Your task to perform on an android device: Open Google Chrome and click the shortcut for Amazon.com Image 0: 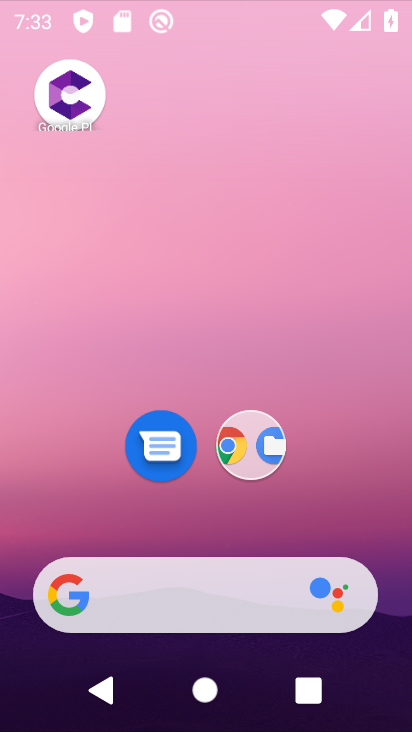
Step 0: press home button
Your task to perform on an android device: Open Google Chrome and click the shortcut for Amazon.com Image 1: 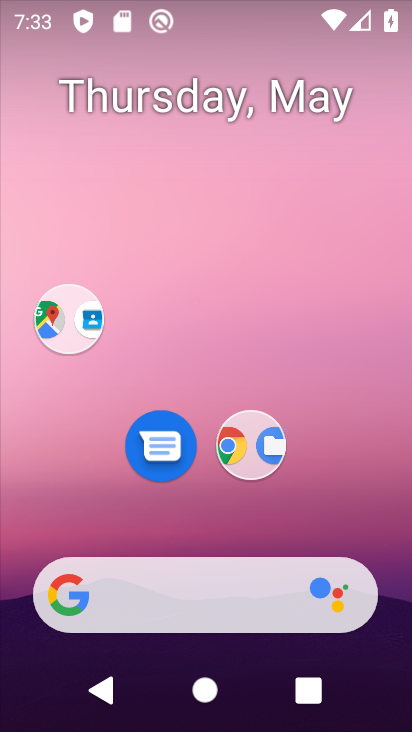
Step 1: drag from (232, 638) to (258, 156)
Your task to perform on an android device: Open Google Chrome and click the shortcut for Amazon.com Image 2: 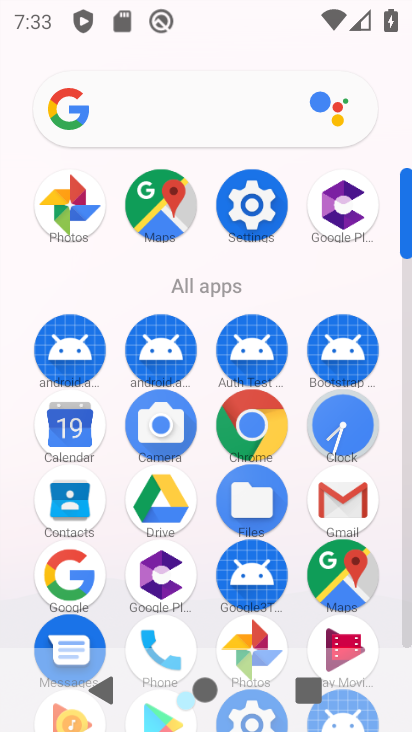
Step 2: click (274, 436)
Your task to perform on an android device: Open Google Chrome and click the shortcut for Amazon.com Image 3: 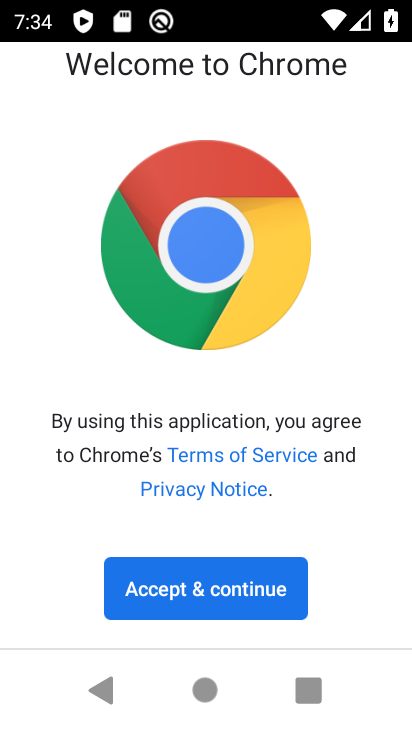
Step 3: click (247, 593)
Your task to perform on an android device: Open Google Chrome and click the shortcut for Amazon.com Image 4: 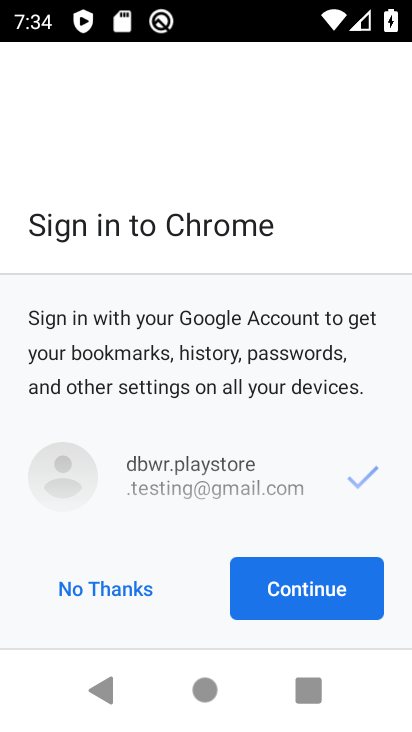
Step 4: click (275, 578)
Your task to perform on an android device: Open Google Chrome and click the shortcut for Amazon.com Image 5: 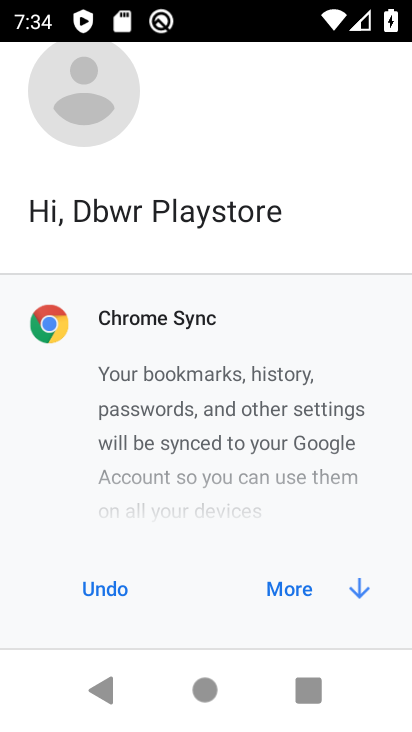
Step 5: click (359, 594)
Your task to perform on an android device: Open Google Chrome and click the shortcut for Amazon.com Image 6: 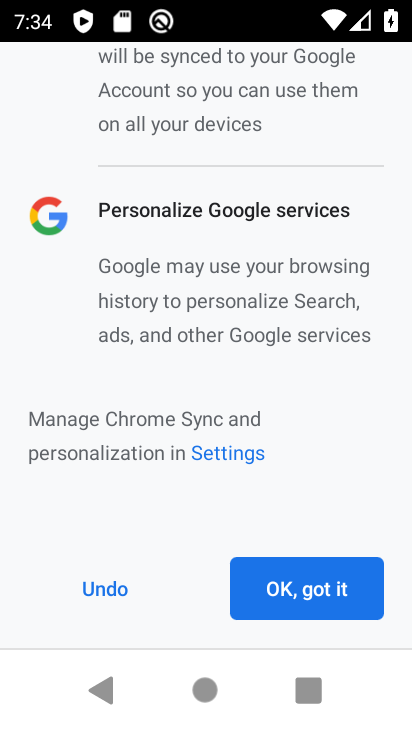
Step 6: click (348, 580)
Your task to perform on an android device: Open Google Chrome and click the shortcut for Amazon.com Image 7: 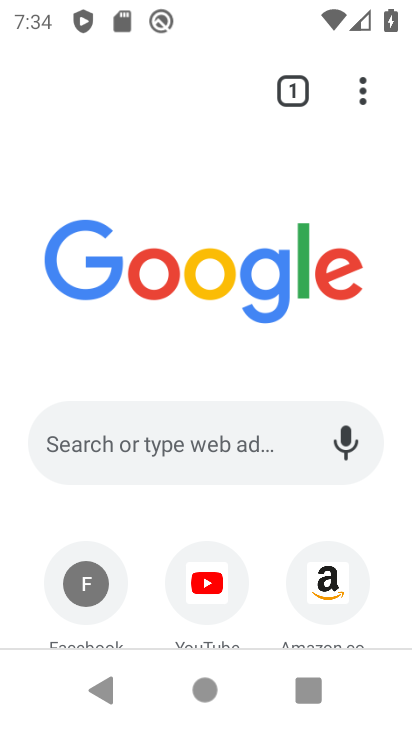
Step 7: click (335, 590)
Your task to perform on an android device: Open Google Chrome and click the shortcut for Amazon.com Image 8: 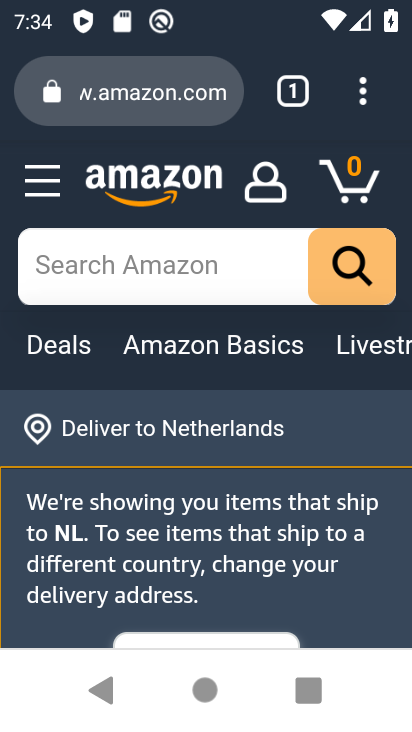
Step 8: click (357, 113)
Your task to perform on an android device: Open Google Chrome and click the shortcut for Amazon.com Image 9: 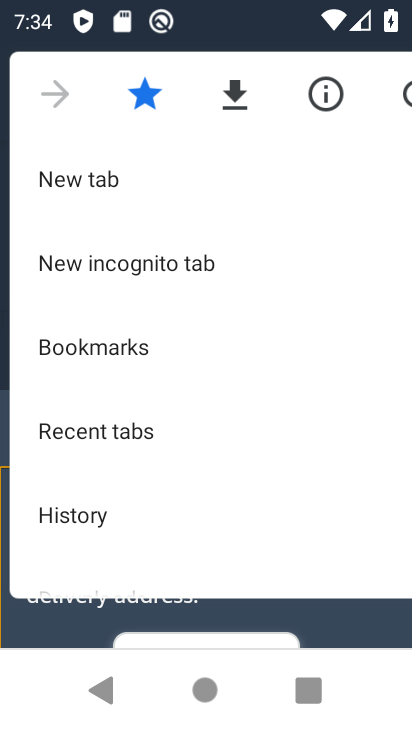
Step 9: click (252, 199)
Your task to perform on an android device: Open Google Chrome and click the shortcut for Amazon.com Image 10: 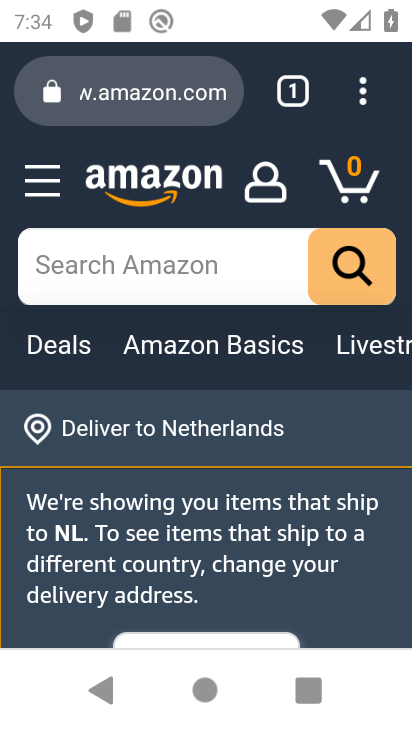
Step 10: drag from (222, 489) to (254, 354)
Your task to perform on an android device: Open Google Chrome and click the shortcut for Amazon.com Image 11: 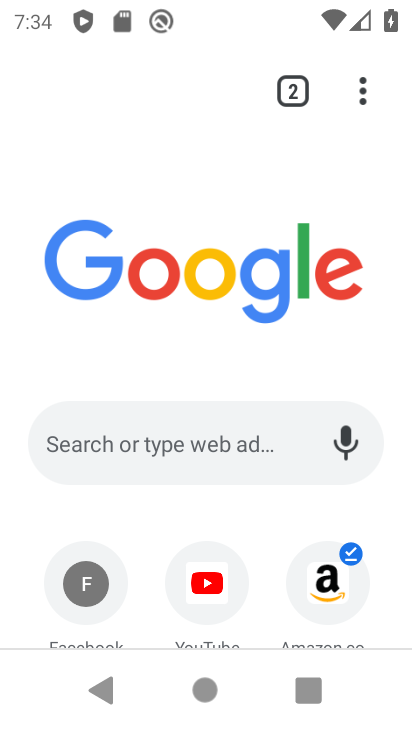
Step 11: click (308, 558)
Your task to perform on an android device: Open Google Chrome and click the shortcut for Amazon.com Image 12: 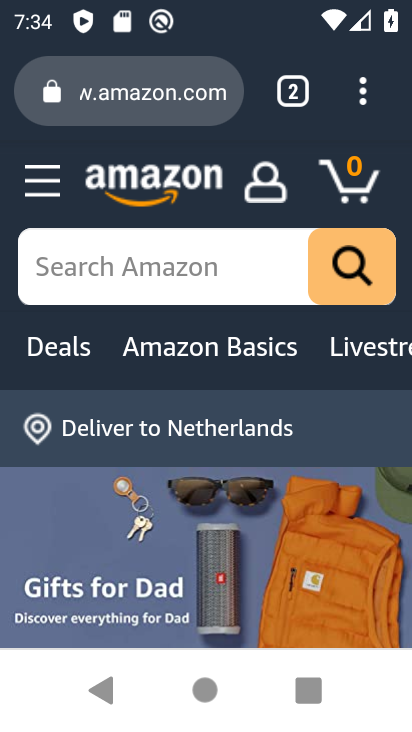
Step 12: click (360, 99)
Your task to perform on an android device: Open Google Chrome and click the shortcut for Amazon.com Image 13: 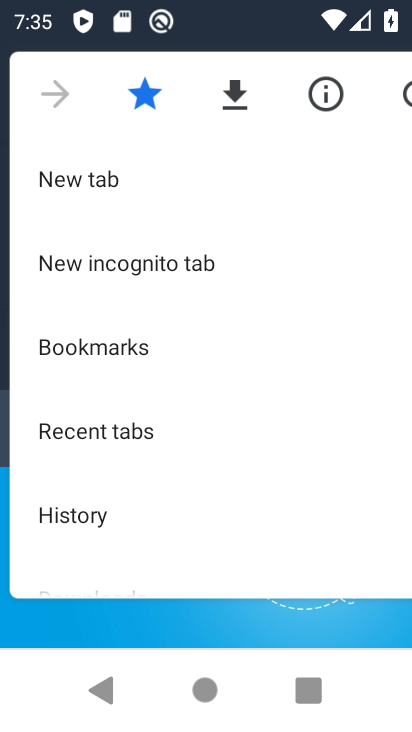
Step 13: drag from (149, 419) to (173, 186)
Your task to perform on an android device: Open Google Chrome and click the shortcut for Amazon.com Image 14: 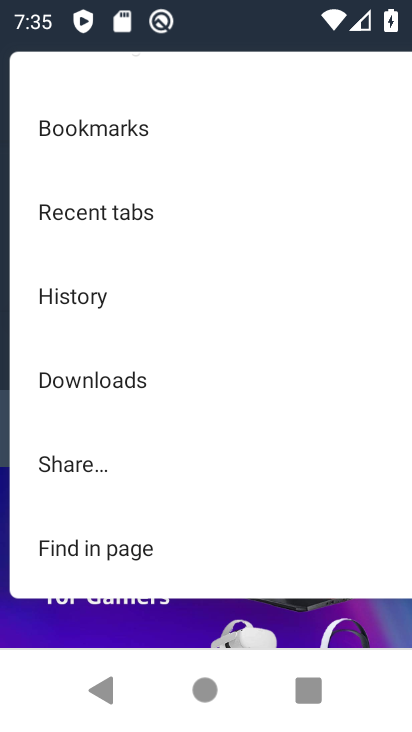
Step 14: drag from (164, 489) to (184, 278)
Your task to perform on an android device: Open Google Chrome and click the shortcut for Amazon.com Image 15: 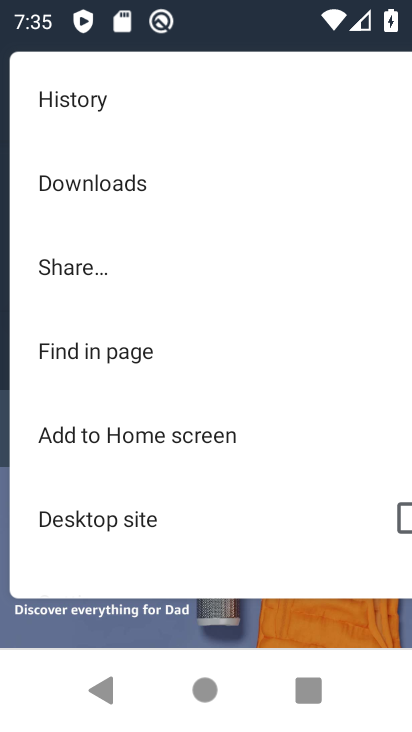
Step 15: click (182, 441)
Your task to perform on an android device: Open Google Chrome and click the shortcut for Amazon.com Image 16: 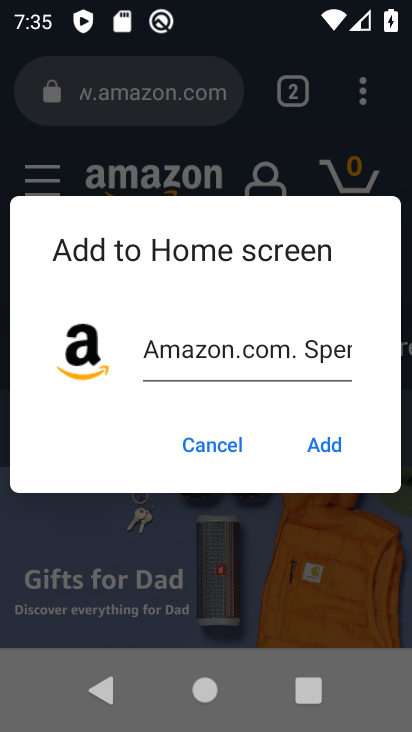
Step 16: click (320, 444)
Your task to perform on an android device: Open Google Chrome and click the shortcut for Amazon.com Image 17: 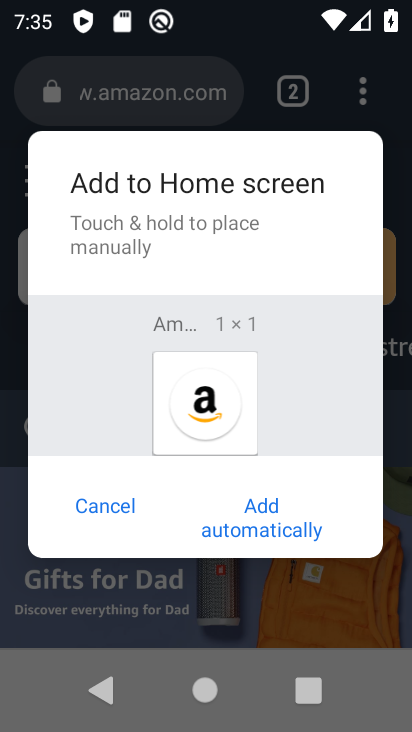
Step 17: click (262, 525)
Your task to perform on an android device: Open Google Chrome and click the shortcut for Amazon.com Image 18: 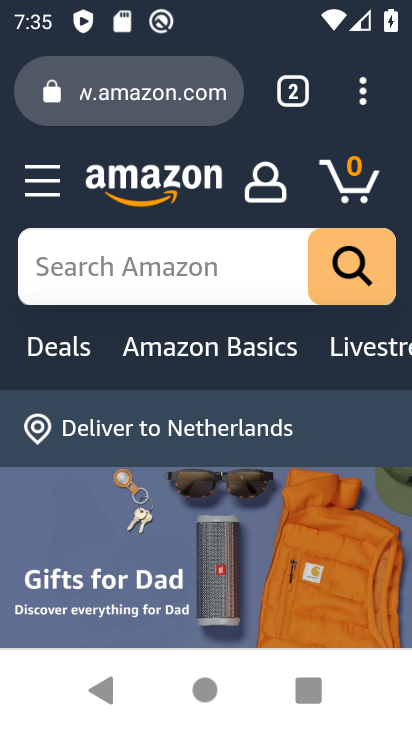
Step 18: task complete